Your task to perform on an android device: turn off notifications in google photos Image 0: 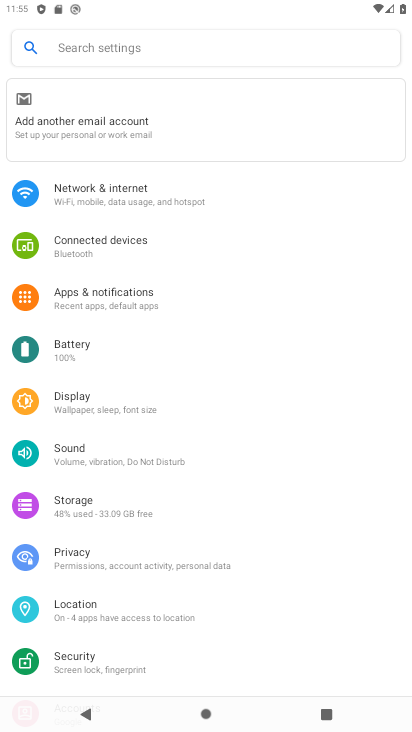
Step 0: press home button
Your task to perform on an android device: turn off notifications in google photos Image 1: 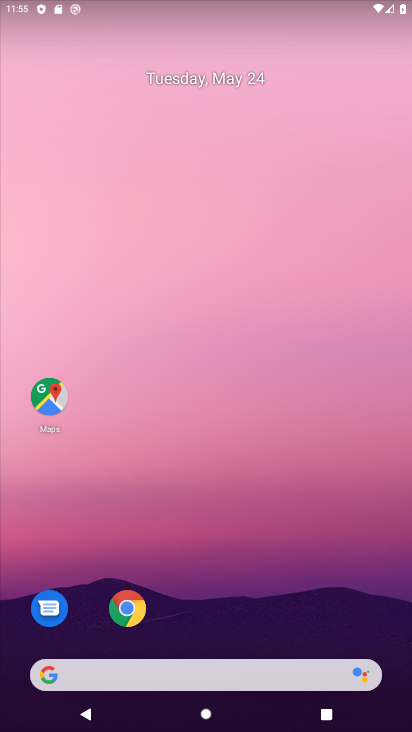
Step 1: drag from (364, 648) to (315, 126)
Your task to perform on an android device: turn off notifications in google photos Image 2: 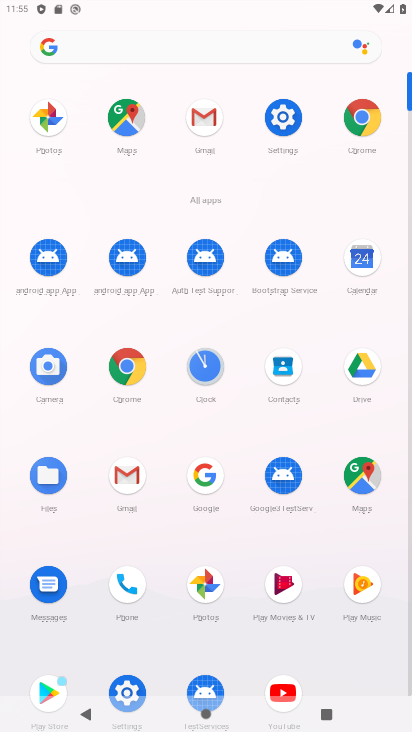
Step 2: click (202, 592)
Your task to perform on an android device: turn off notifications in google photos Image 3: 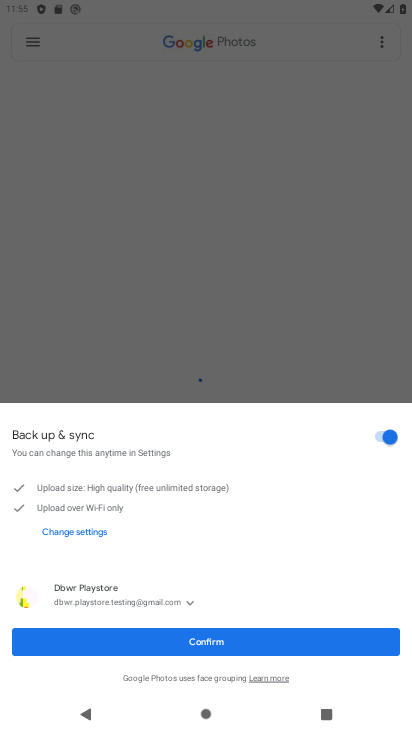
Step 3: click (218, 647)
Your task to perform on an android device: turn off notifications in google photos Image 4: 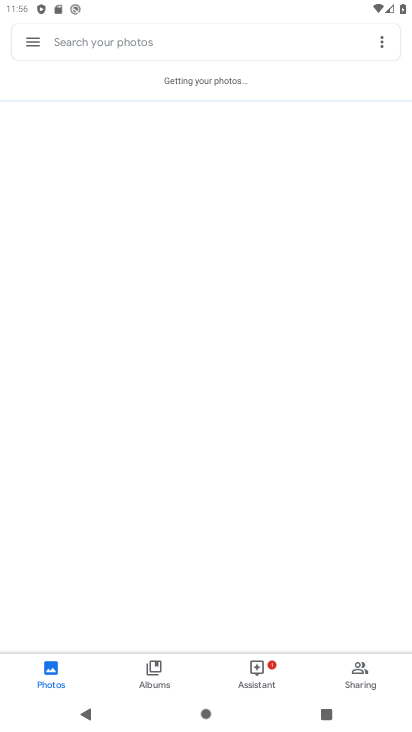
Step 4: drag from (383, 45) to (276, 200)
Your task to perform on an android device: turn off notifications in google photos Image 5: 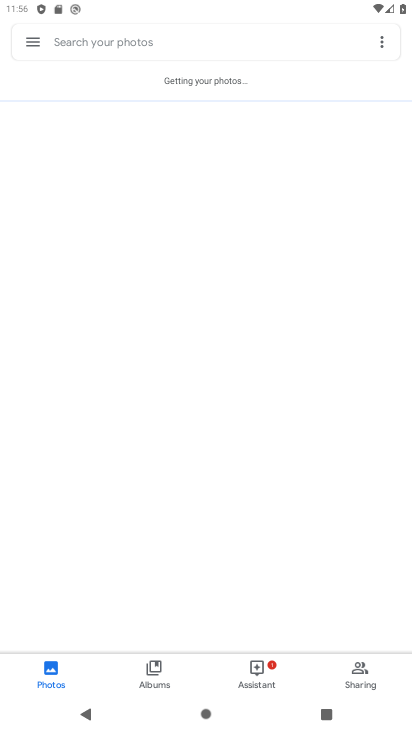
Step 5: press home button
Your task to perform on an android device: turn off notifications in google photos Image 6: 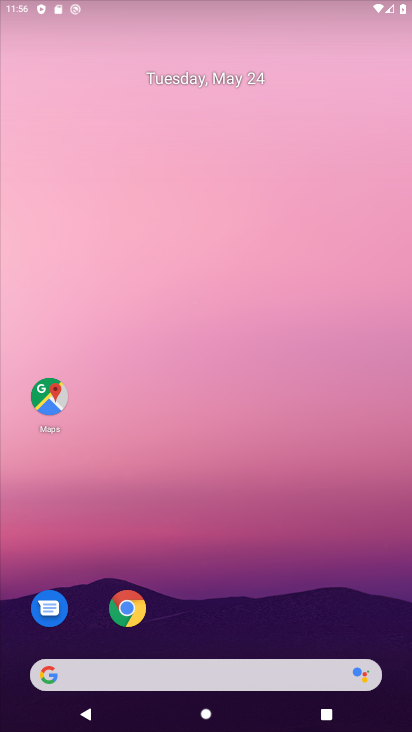
Step 6: drag from (363, 590) to (304, 161)
Your task to perform on an android device: turn off notifications in google photos Image 7: 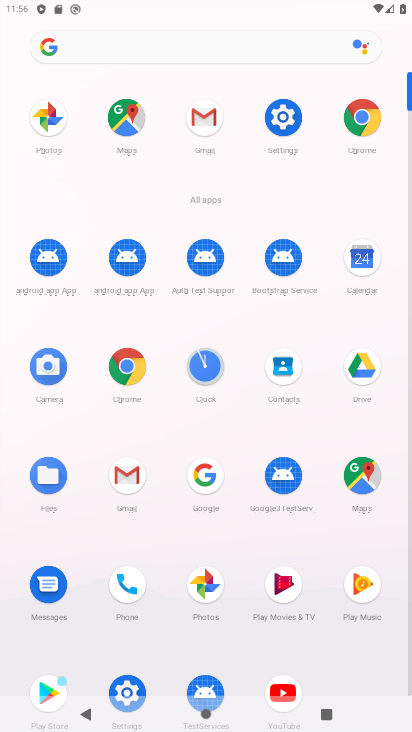
Step 7: click (200, 592)
Your task to perform on an android device: turn off notifications in google photos Image 8: 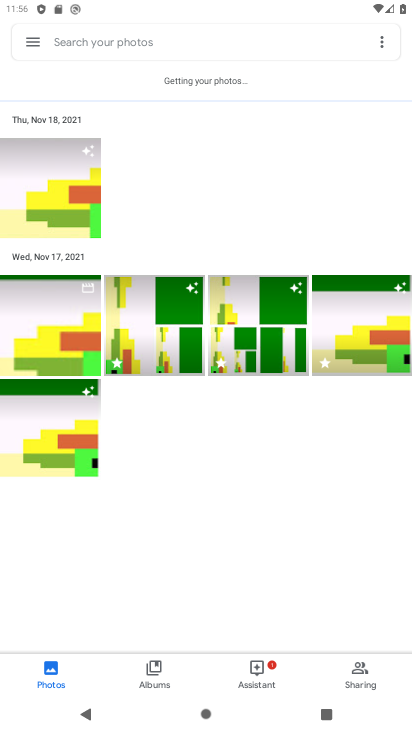
Step 8: click (43, 45)
Your task to perform on an android device: turn off notifications in google photos Image 9: 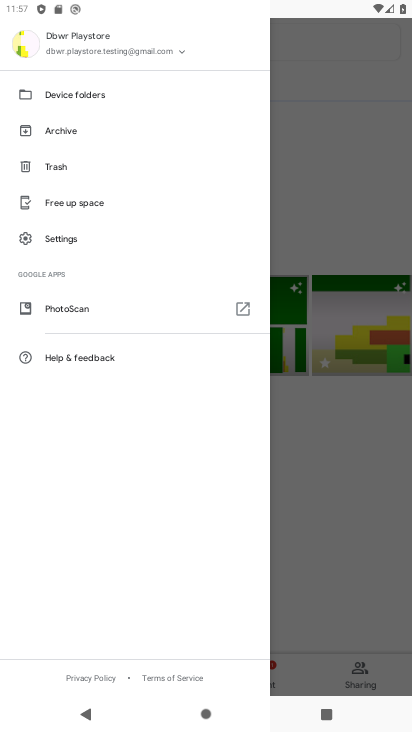
Step 9: click (70, 241)
Your task to perform on an android device: turn off notifications in google photos Image 10: 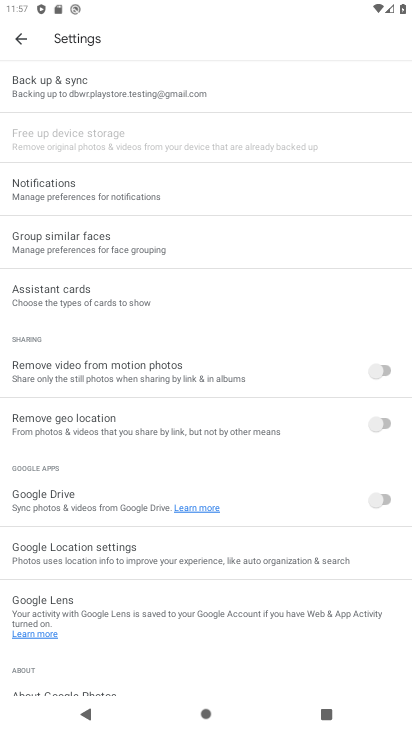
Step 10: click (78, 195)
Your task to perform on an android device: turn off notifications in google photos Image 11: 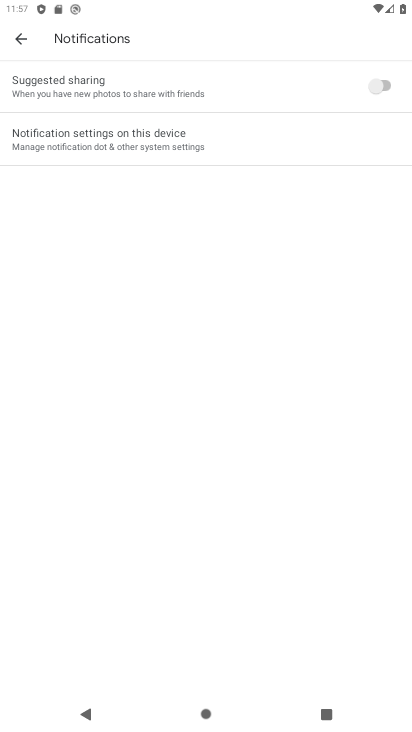
Step 11: click (107, 135)
Your task to perform on an android device: turn off notifications in google photos Image 12: 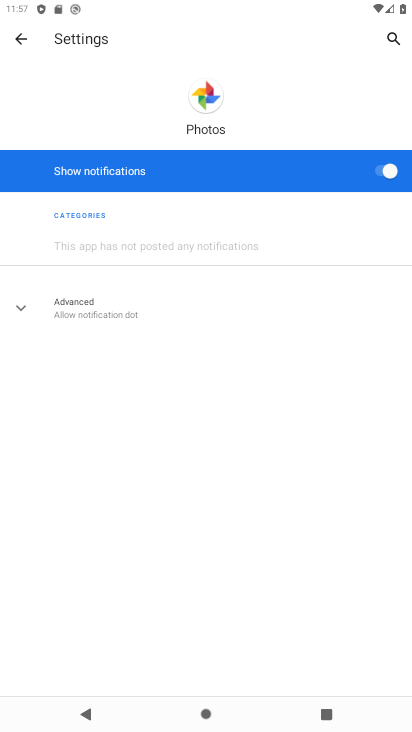
Step 12: task complete